Your task to perform on an android device: Open Google Maps Image 0: 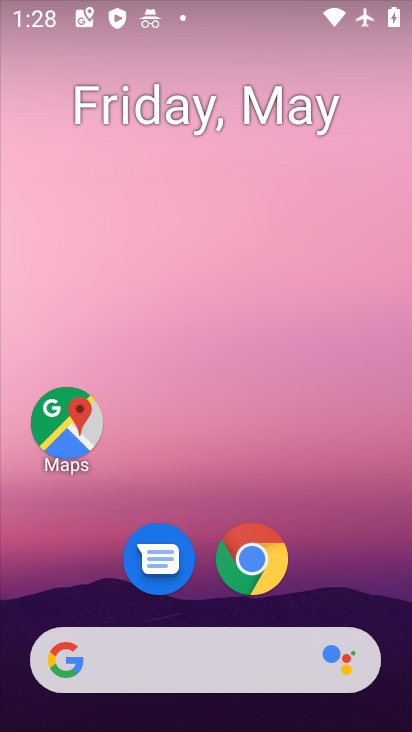
Step 0: click (238, 557)
Your task to perform on an android device: Open Google Maps Image 1: 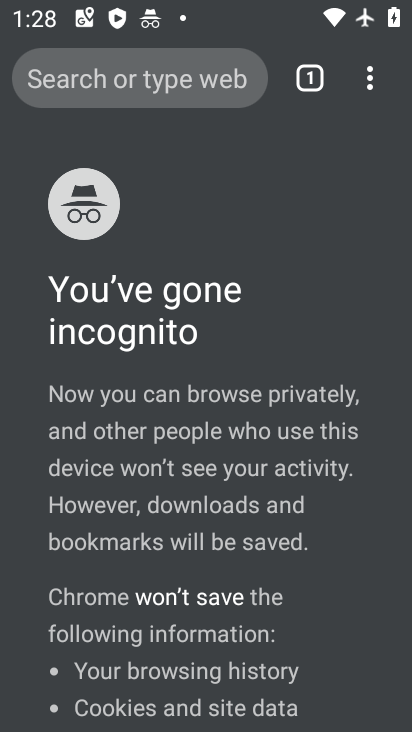
Step 1: press home button
Your task to perform on an android device: Open Google Maps Image 2: 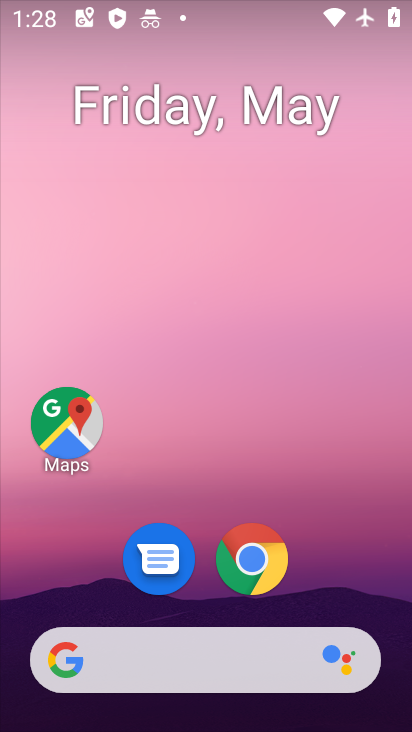
Step 2: click (70, 421)
Your task to perform on an android device: Open Google Maps Image 3: 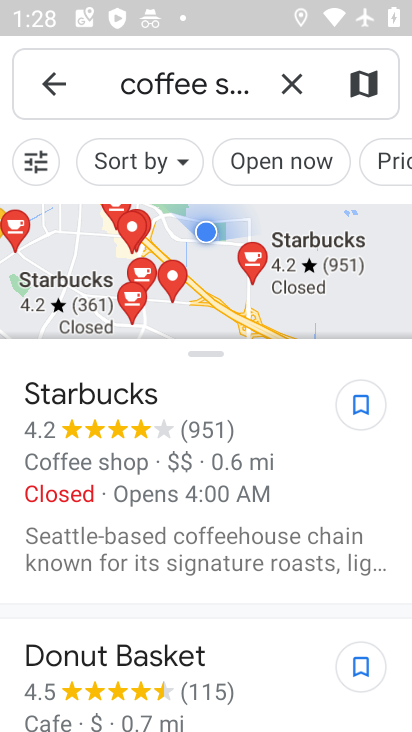
Step 3: task complete